Your task to perform on an android device: turn on showing notifications on the lock screen Image 0: 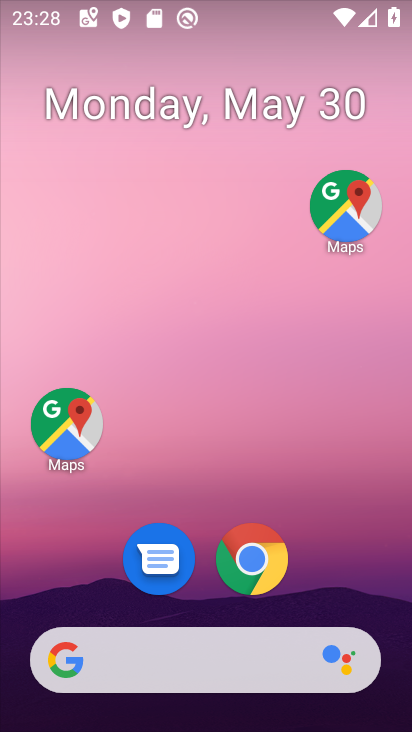
Step 0: drag from (313, 494) to (226, 25)
Your task to perform on an android device: turn on showing notifications on the lock screen Image 1: 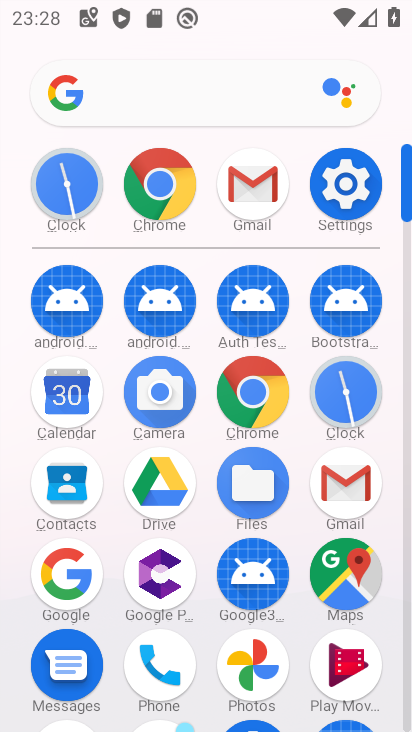
Step 1: click (339, 192)
Your task to perform on an android device: turn on showing notifications on the lock screen Image 2: 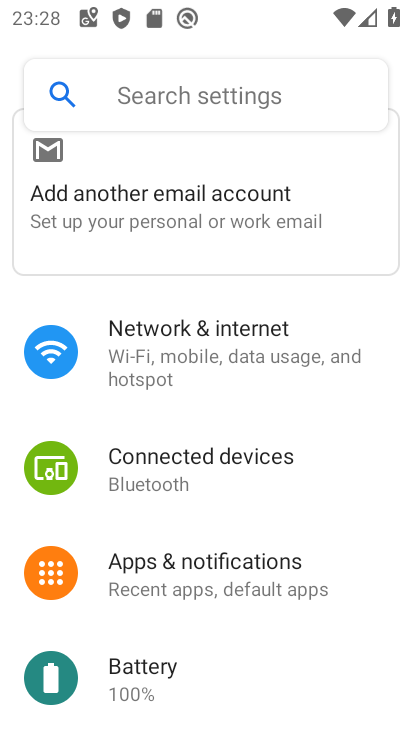
Step 2: click (250, 572)
Your task to perform on an android device: turn on showing notifications on the lock screen Image 3: 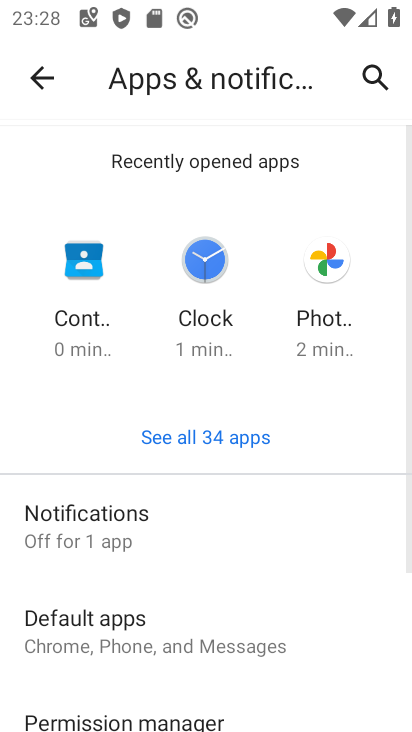
Step 3: click (144, 523)
Your task to perform on an android device: turn on showing notifications on the lock screen Image 4: 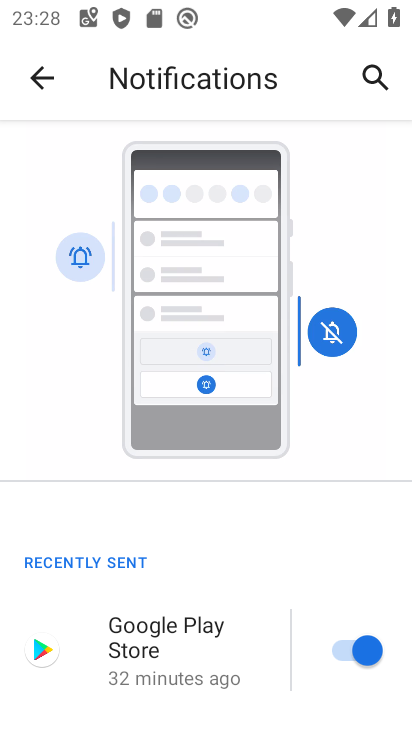
Step 4: drag from (206, 595) to (178, 37)
Your task to perform on an android device: turn on showing notifications on the lock screen Image 5: 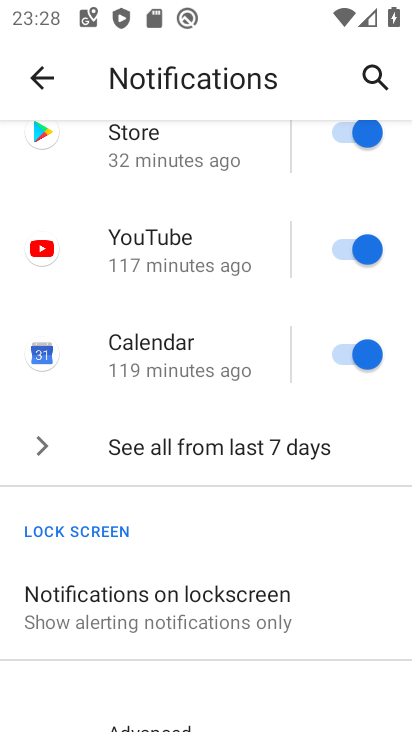
Step 5: click (174, 606)
Your task to perform on an android device: turn on showing notifications on the lock screen Image 6: 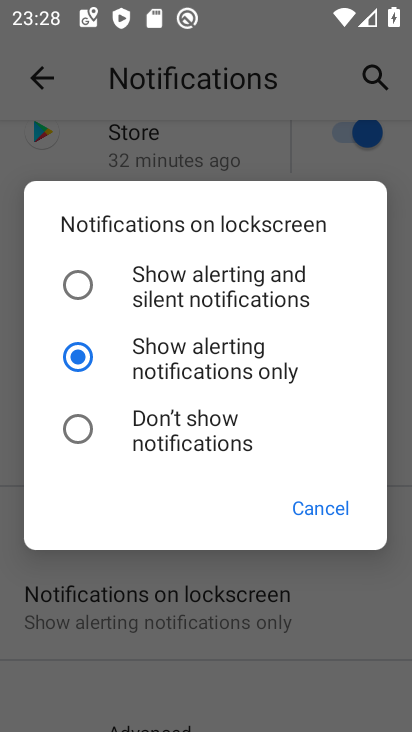
Step 6: task complete